Your task to perform on an android device: change the clock style Image 0: 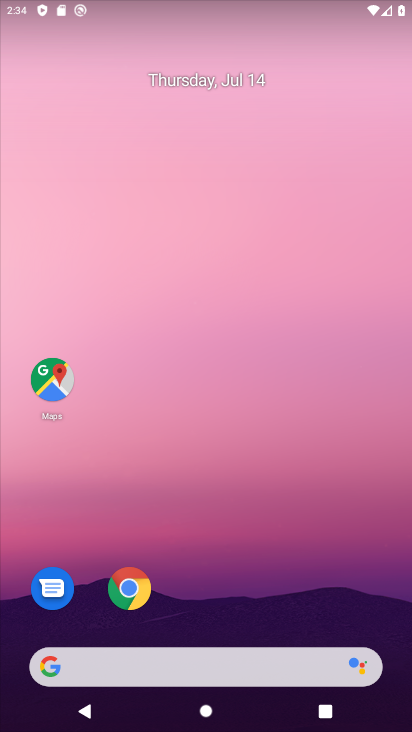
Step 0: drag from (217, 625) to (160, 272)
Your task to perform on an android device: change the clock style Image 1: 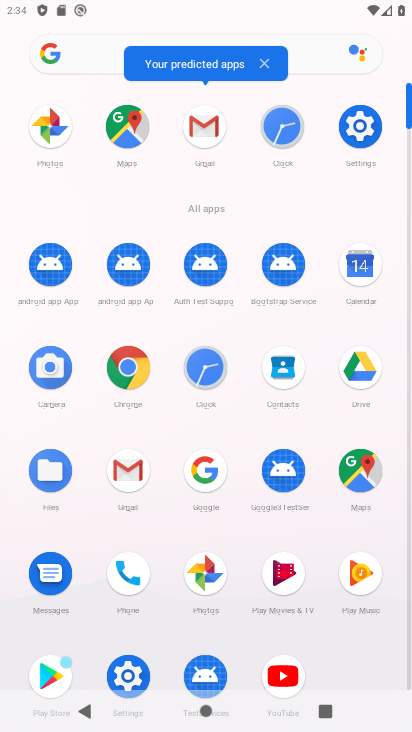
Step 1: click (204, 378)
Your task to perform on an android device: change the clock style Image 2: 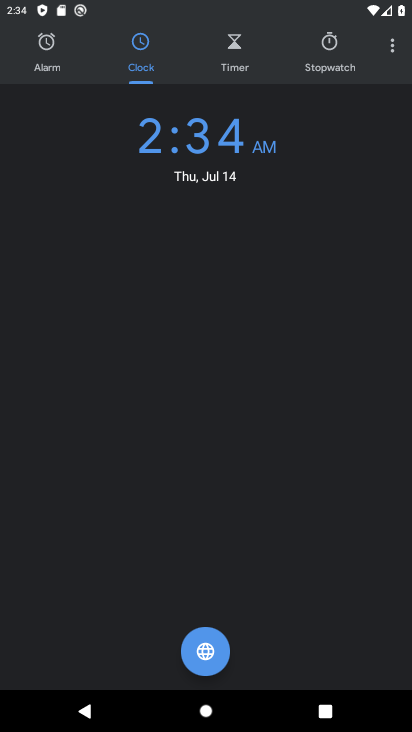
Step 2: click (395, 49)
Your task to perform on an android device: change the clock style Image 3: 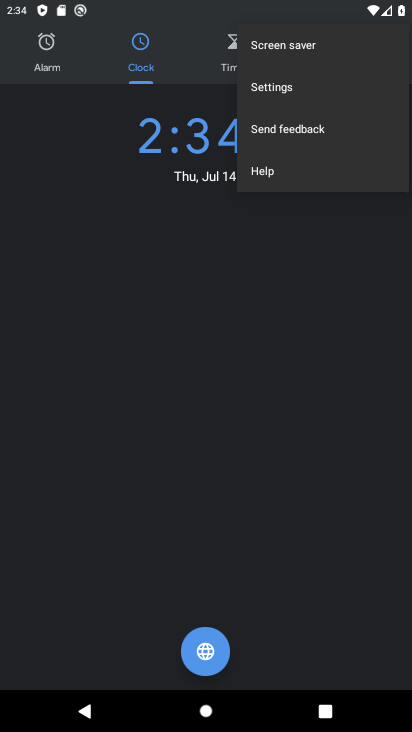
Step 3: click (284, 88)
Your task to perform on an android device: change the clock style Image 4: 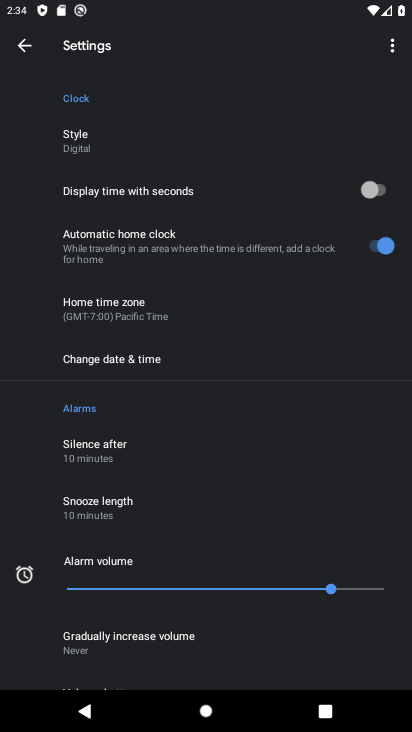
Step 4: drag from (120, 365) to (121, 294)
Your task to perform on an android device: change the clock style Image 5: 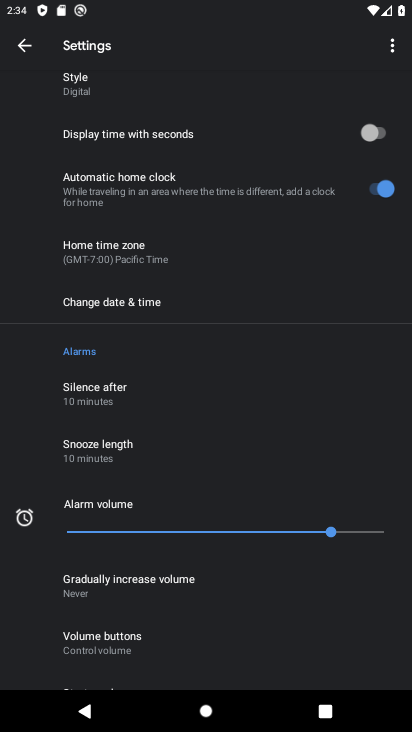
Step 5: click (70, 95)
Your task to perform on an android device: change the clock style Image 6: 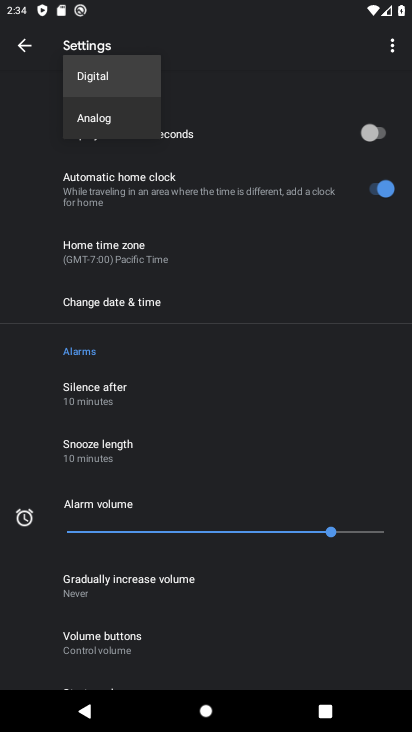
Step 6: click (87, 113)
Your task to perform on an android device: change the clock style Image 7: 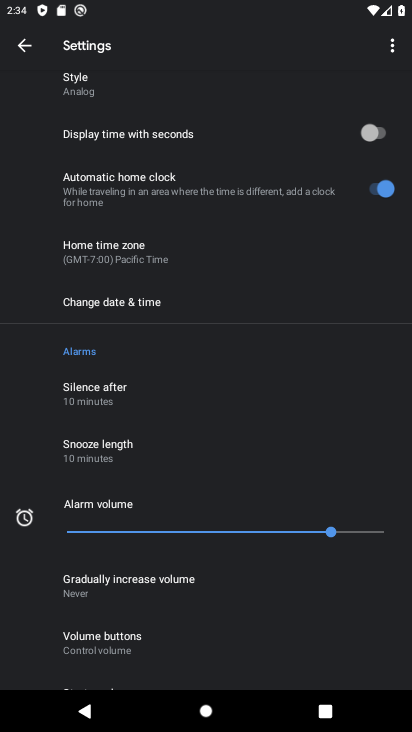
Step 7: task complete